Your task to perform on an android device: Search for "bose soundlink mini" on target, select the first entry, add it to the cart, then select checkout. Image 0: 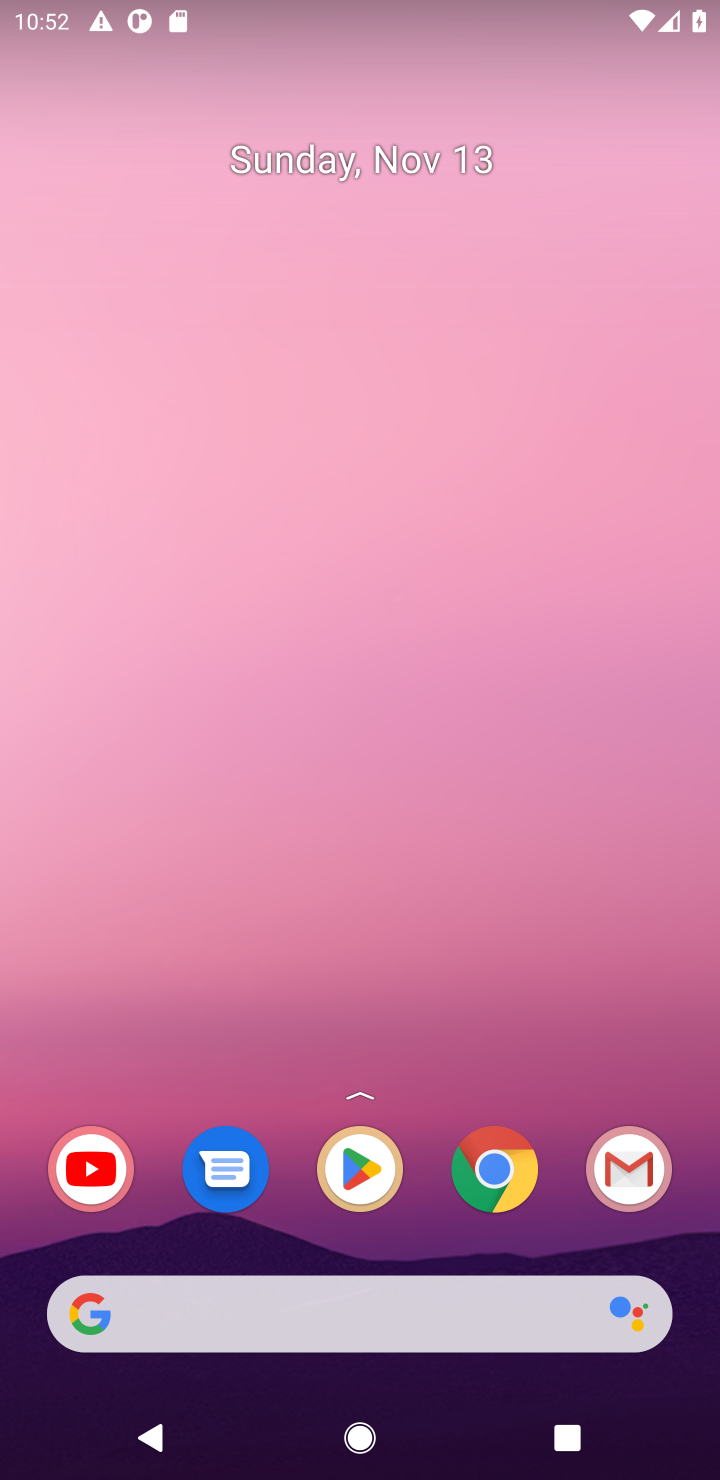
Step 0: drag from (432, 1240) to (277, 225)
Your task to perform on an android device: Search for "bose soundlink mini" on target, select the first entry, add it to the cart, then select checkout. Image 1: 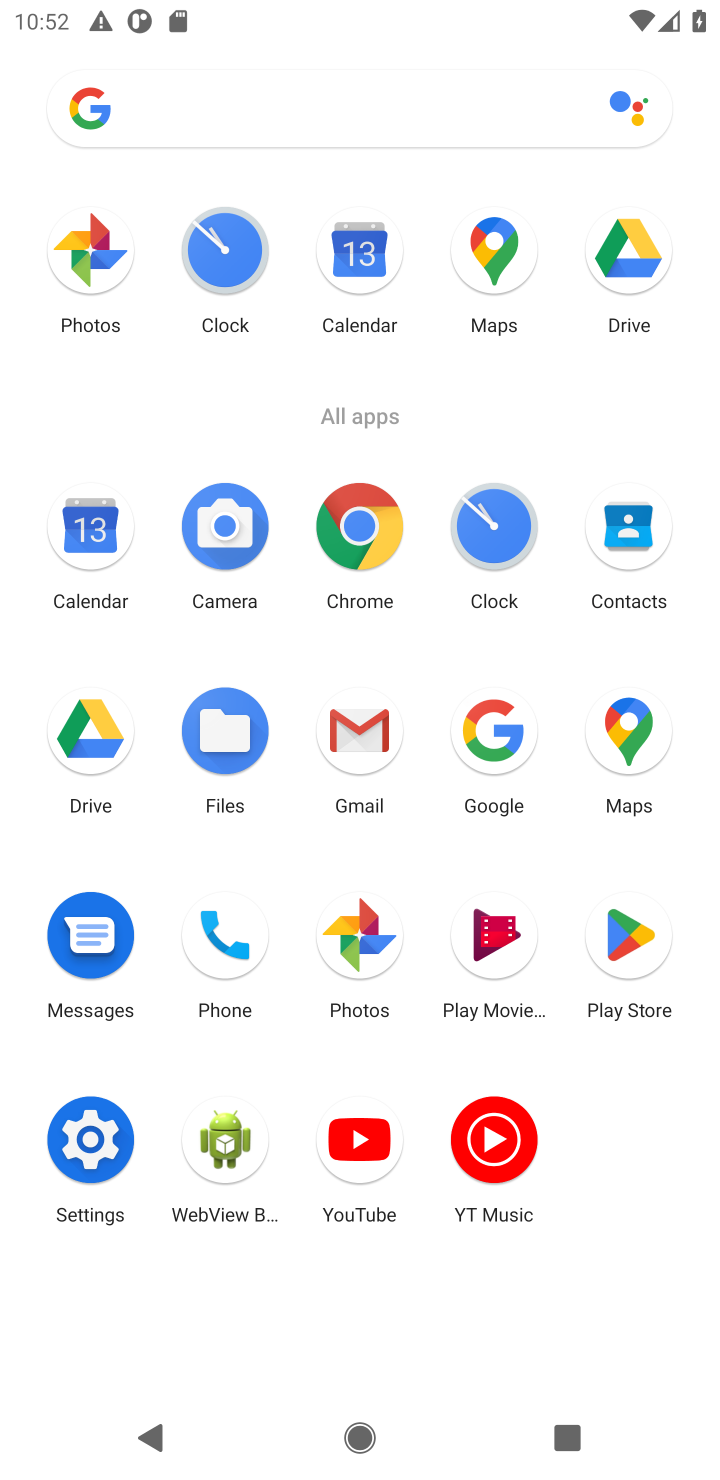
Step 1: click (358, 528)
Your task to perform on an android device: Search for "bose soundlink mini" on target, select the first entry, add it to the cart, then select checkout. Image 2: 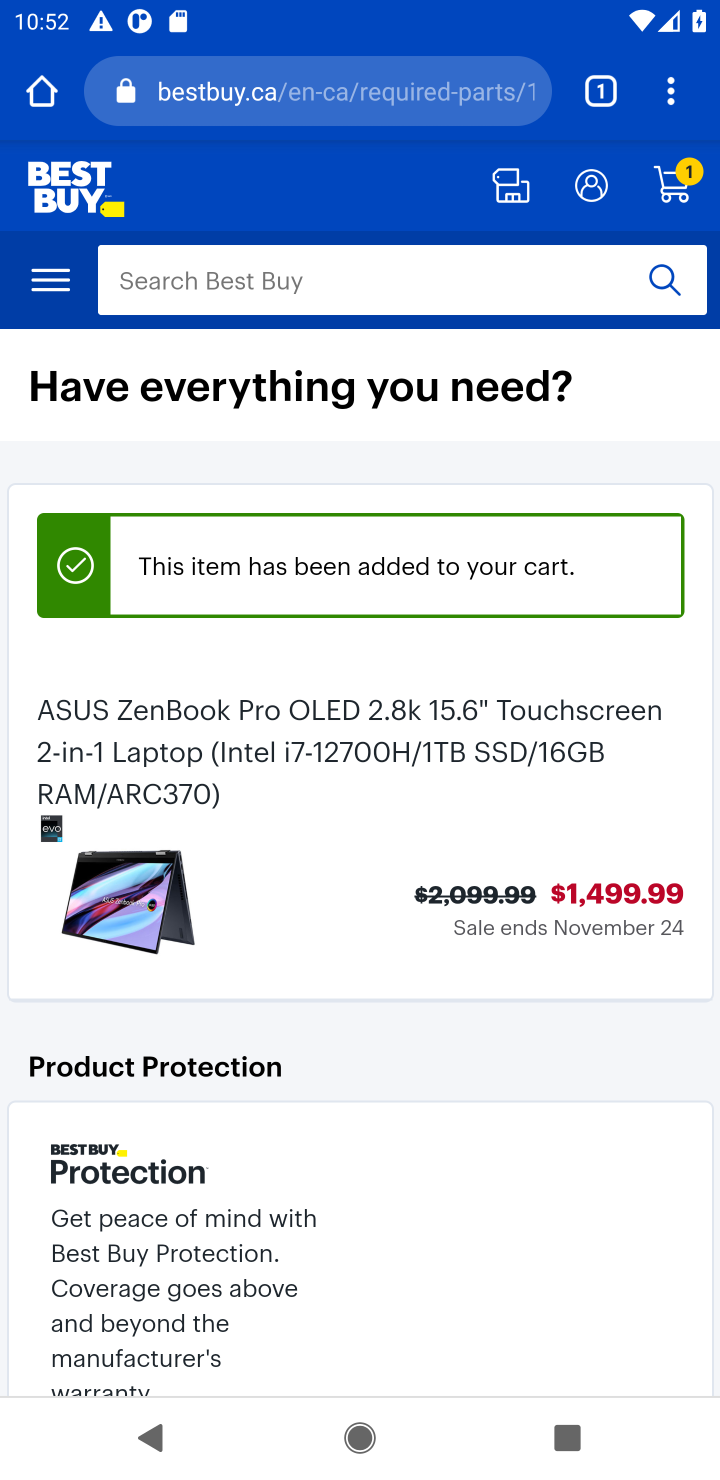
Step 2: click (370, 80)
Your task to perform on an android device: Search for "bose soundlink mini" on target, select the first entry, add it to the cart, then select checkout. Image 3: 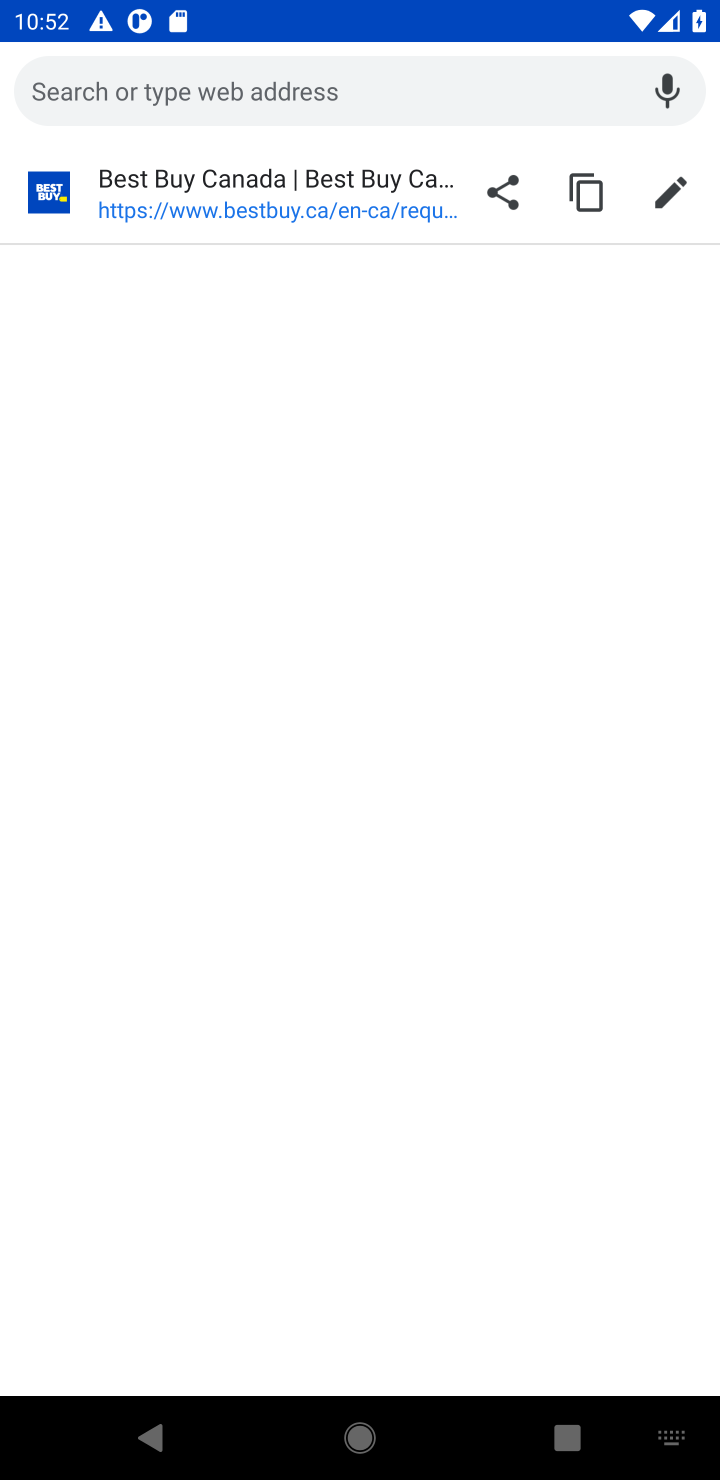
Step 3: type "target.com"
Your task to perform on an android device: Search for "bose soundlink mini" on target, select the first entry, add it to the cart, then select checkout. Image 4: 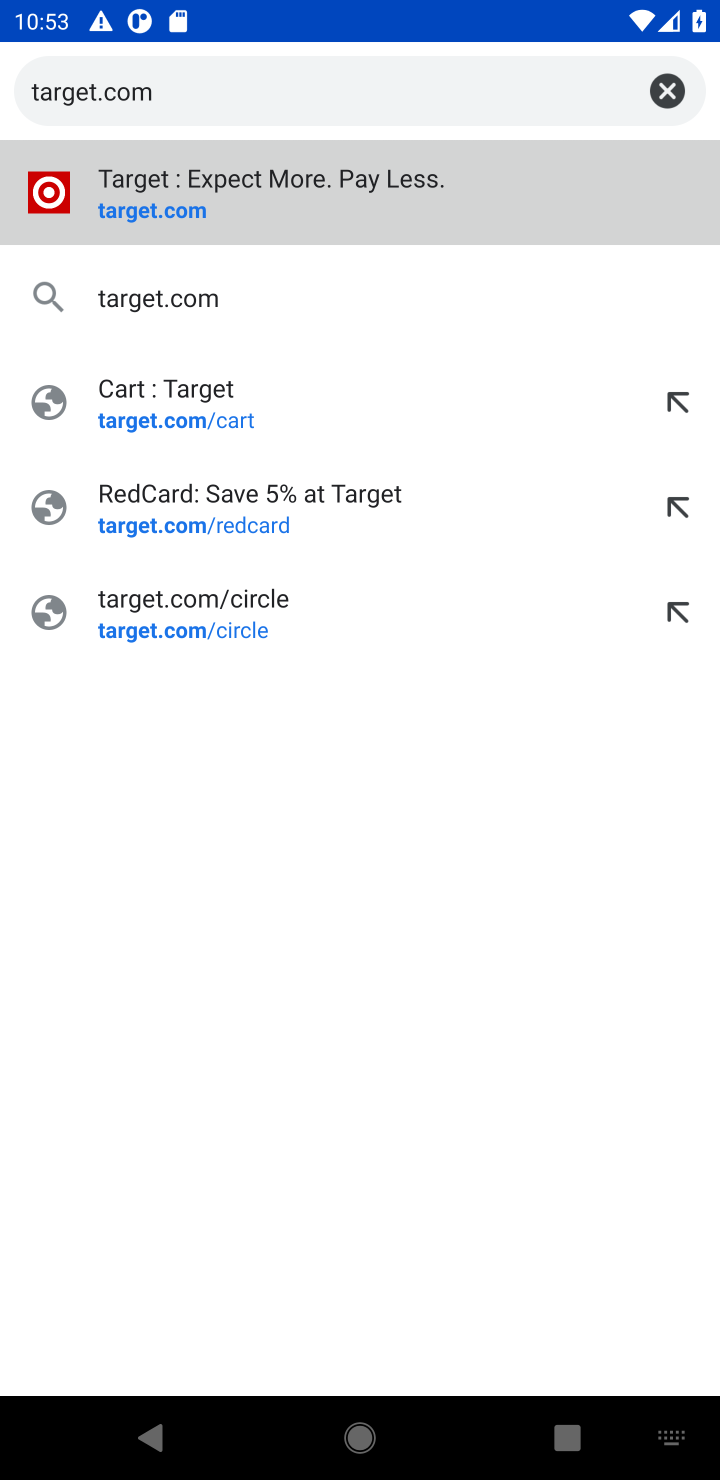
Step 4: press enter
Your task to perform on an android device: Search for "bose soundlink mini" on target, select the first entry, add it to the cart, then select checkout. Image 5: 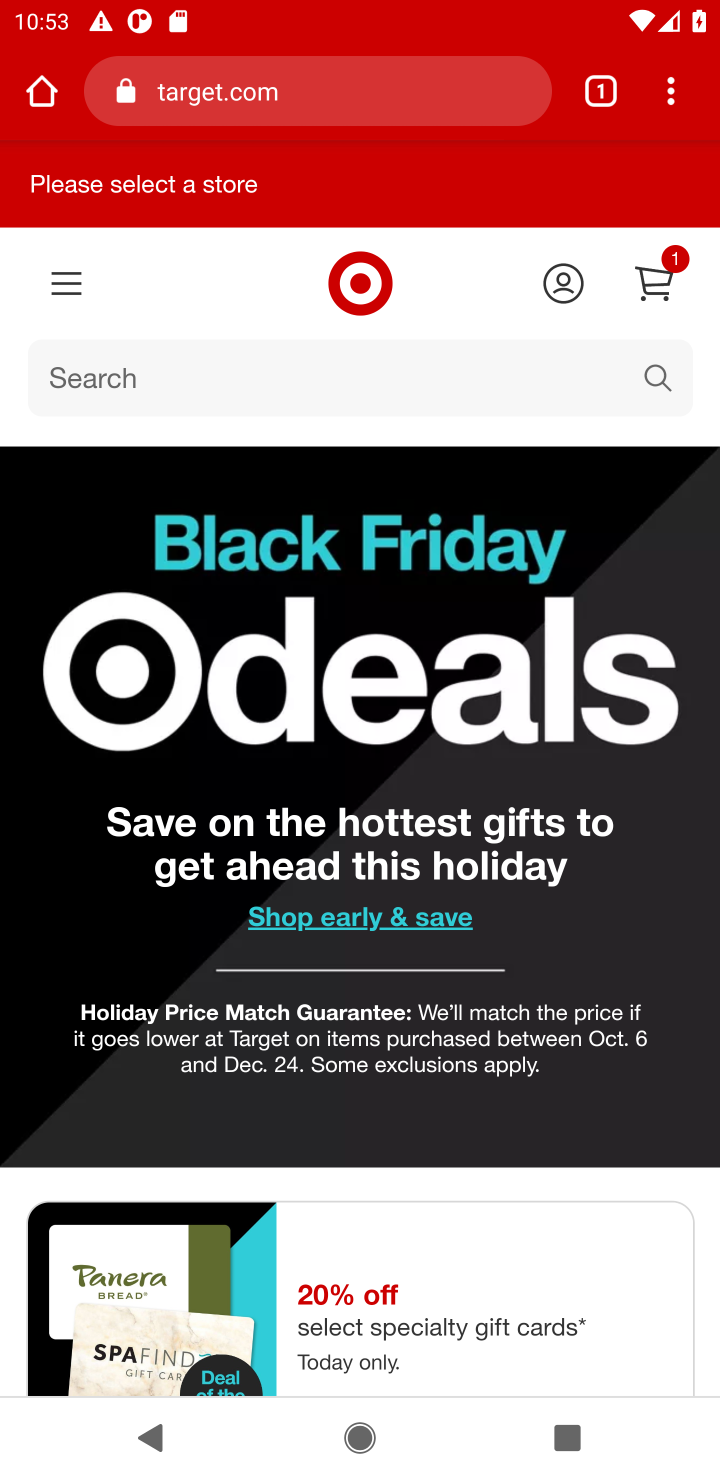
Step 5: click (384, 377)
Your task to perform on an android device: Search for "bose soundlink mini" on target, select the first entry, add it to the cart, then select checkout. Image 6: 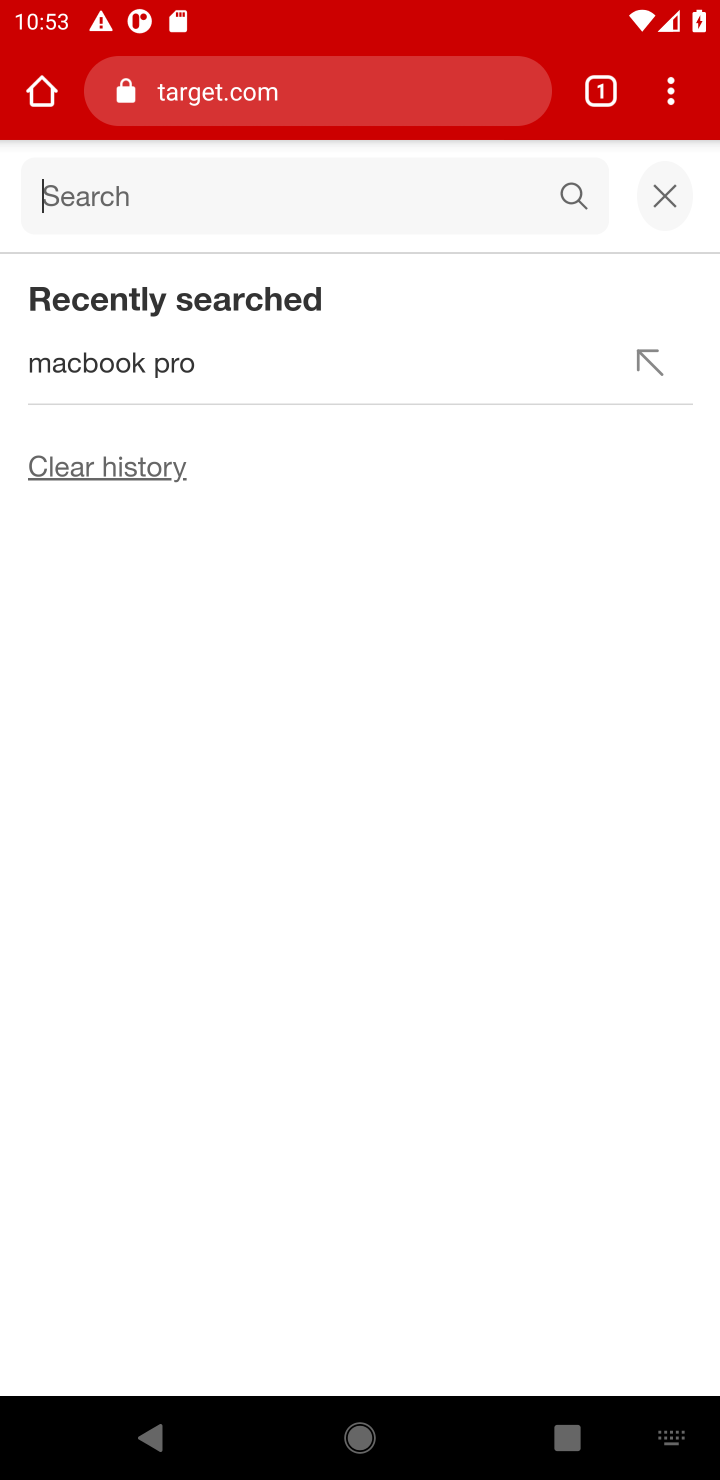
Step 6: type "bose soundlink mini\"
Your task to perform on an android device: Search for "bose soundlink mini" on target, select the first entry, add it to the cart, then select checkout. Image 7: 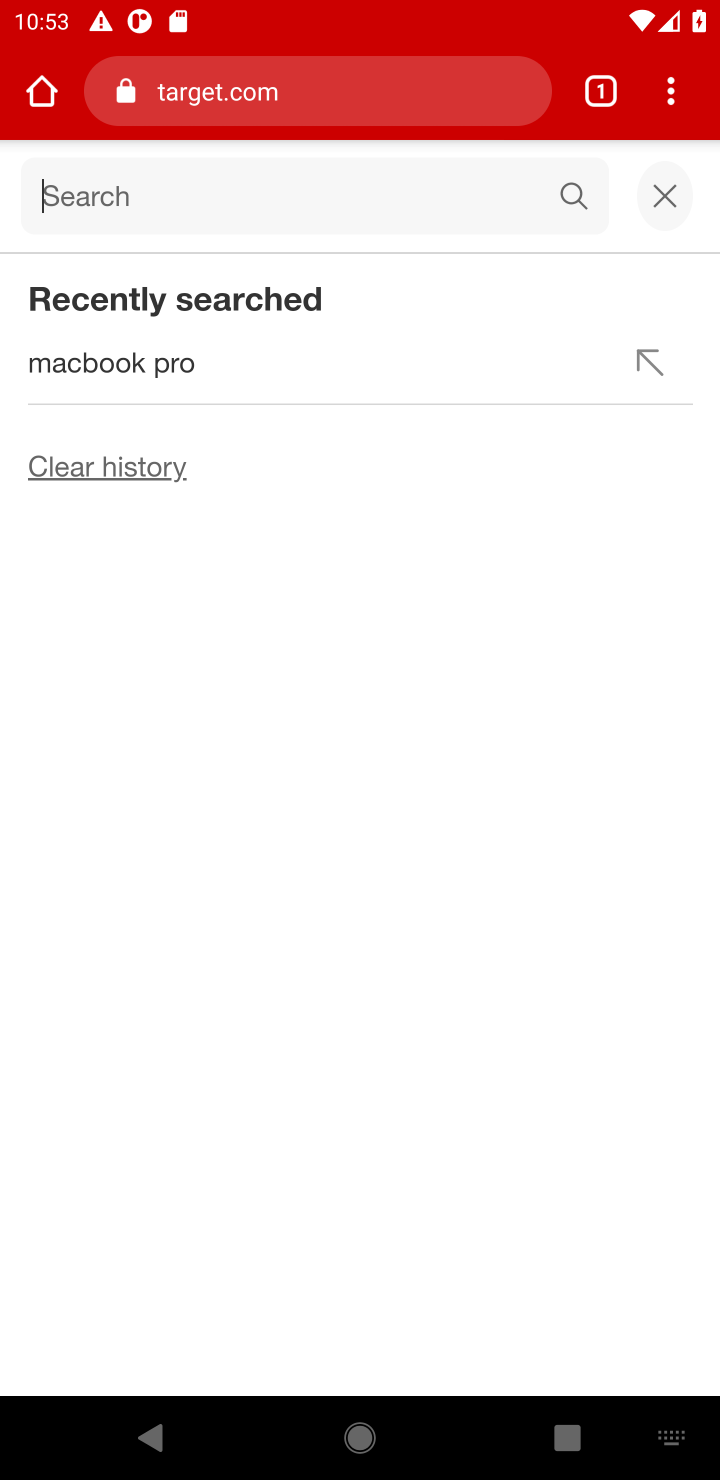
Step 7: press enter
Your task to perform on an android device: Search for "bose soundlink mini" on target, select the first entry, add it to the cart, then select checkout. Image 8: 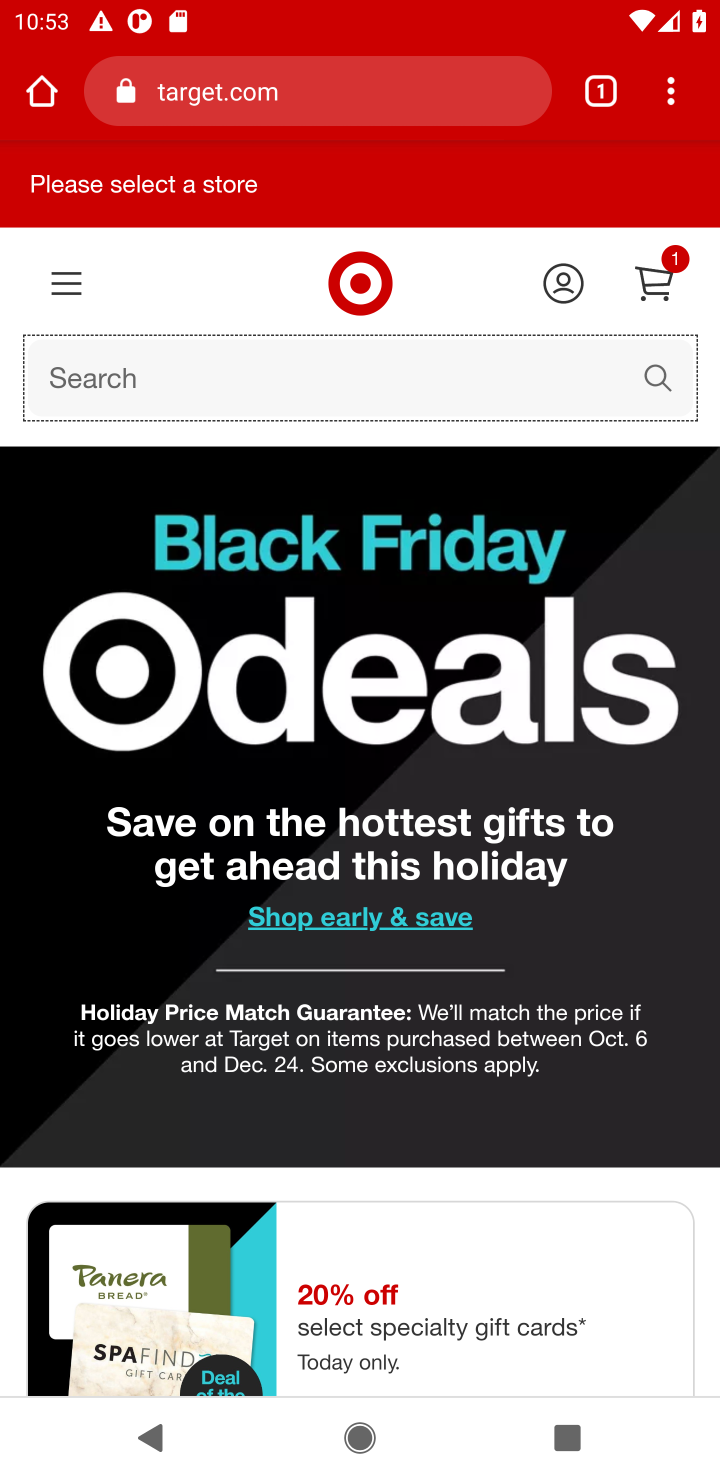
Step 8: drag from (340, 1102) to (388, 434)
Your task to perform on an android device: Search for "bose soundlink mini" on target, select the first entry, add it to the cart, then select checkout. Image 9: 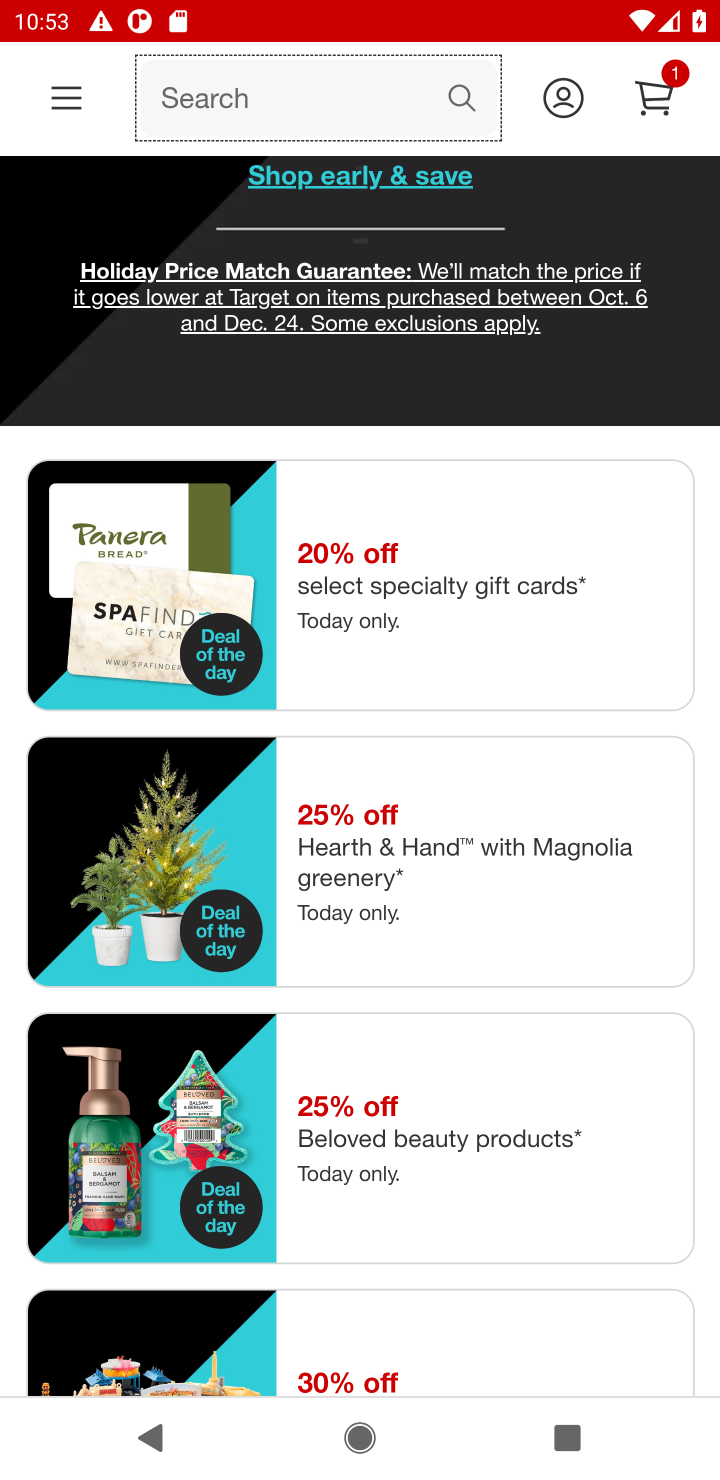
Step 9: drag from (329, 1060) to (469, 256)
Your task to perform on an android device: Search for "bose soundlink mini" on target, select the first entry, add it to the cart, then select checkout. Image 10: 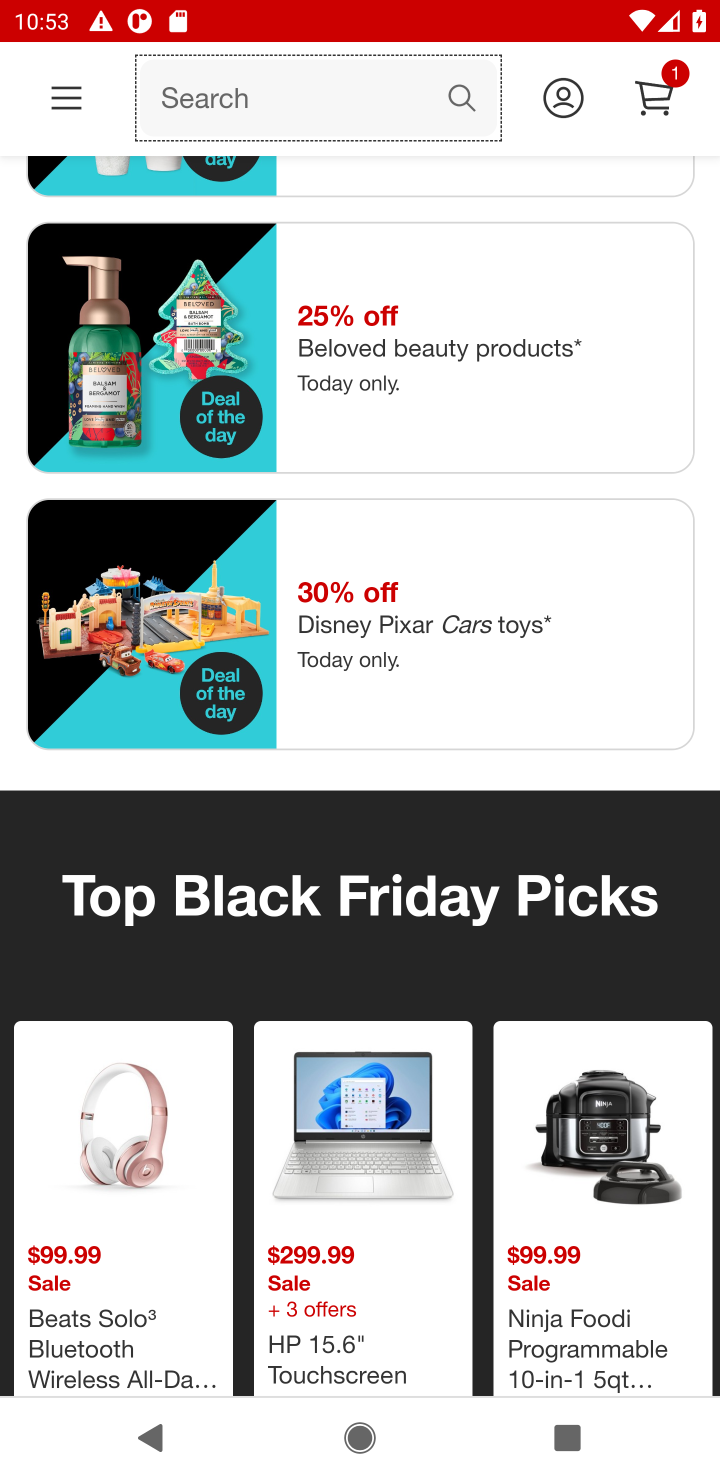
Step 10: drag from (469, 256) to (335, 885)
Your task to perform on an android device: Search for "bose soundlink mini" on target, select the first entry, add it to the cart, then select checkout. Image 11: 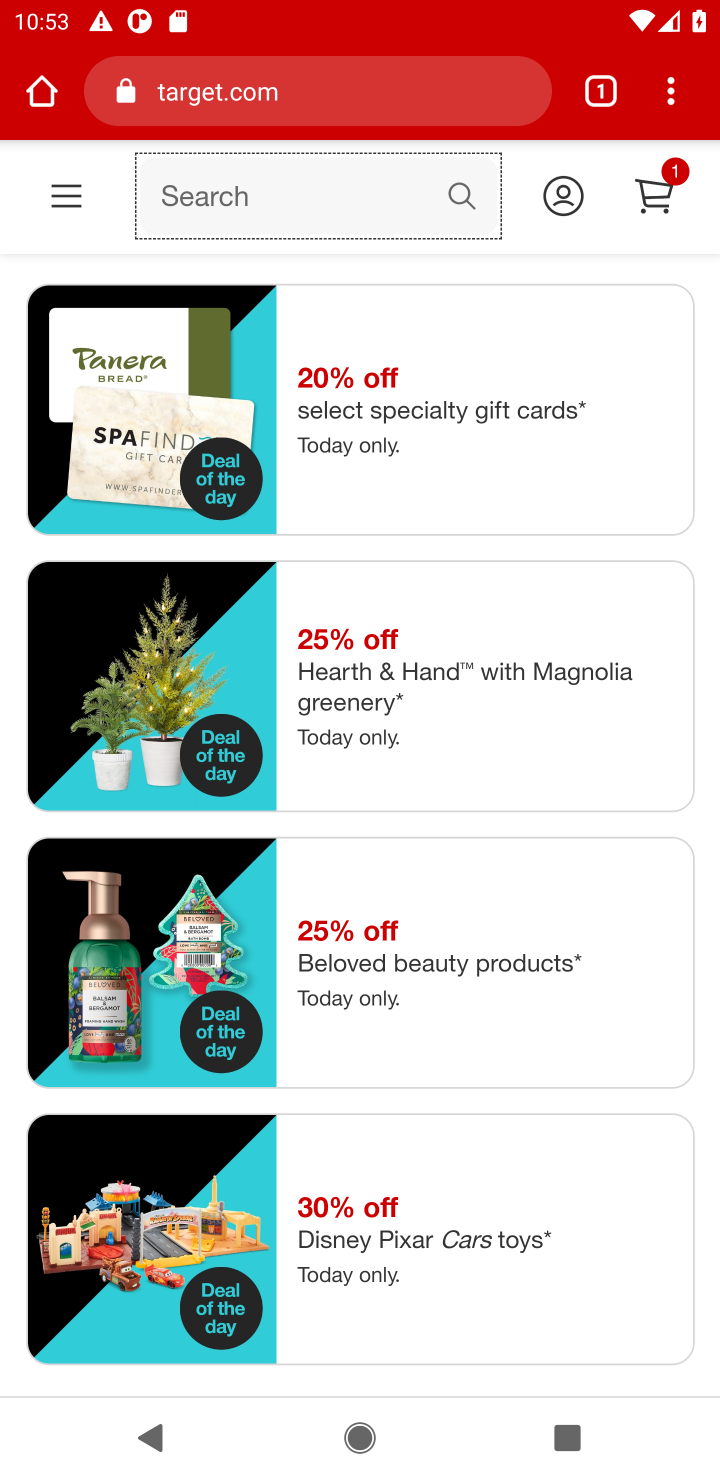
Step 11: click (345, 207)
Your task to perform on an android device: Search for "bose soundlink mini" on target, select the first entry, add it to the cart, then select checkout. Image 12: 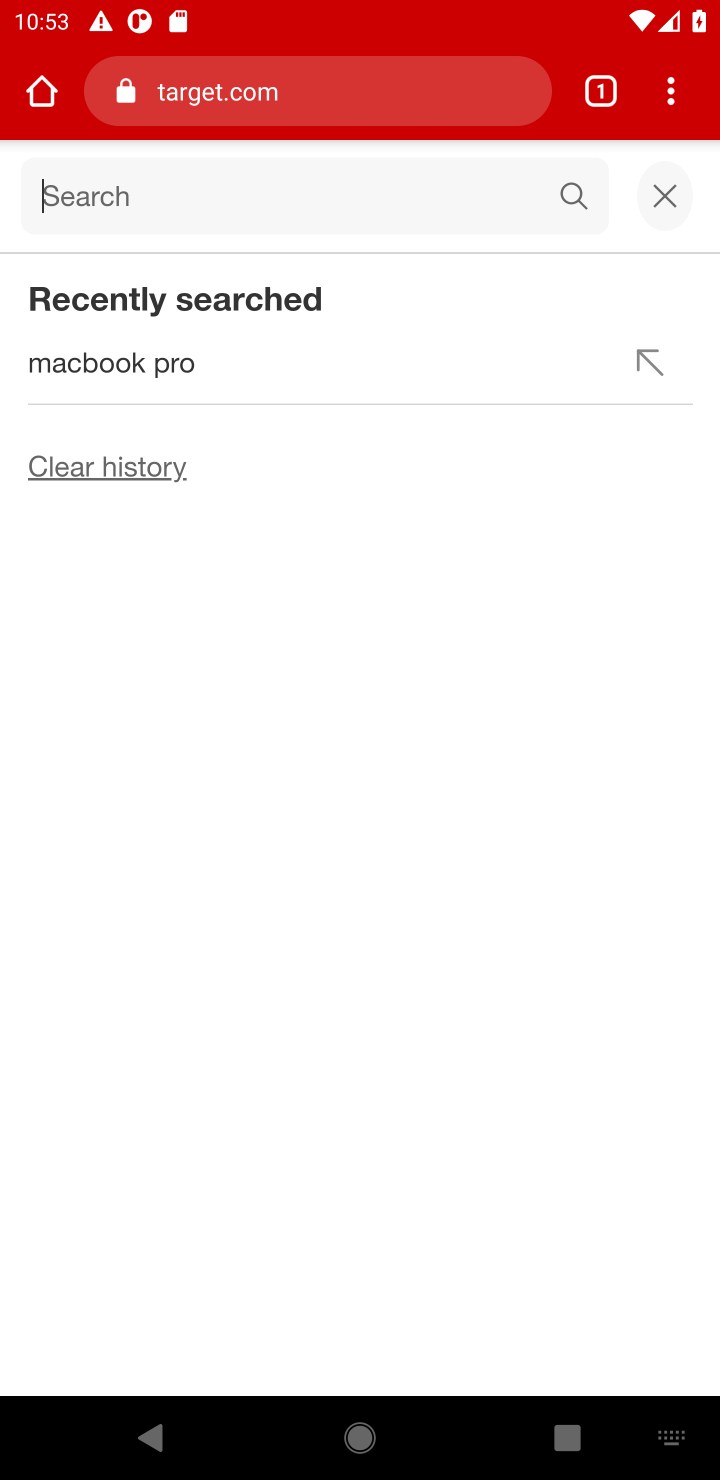
Step 12: type "bose soundlink mini"
Your task to perform on an android device: Search for "bose soundlink mini" on target, select the first entry, add it to the cart, then select checkout. Image 13: 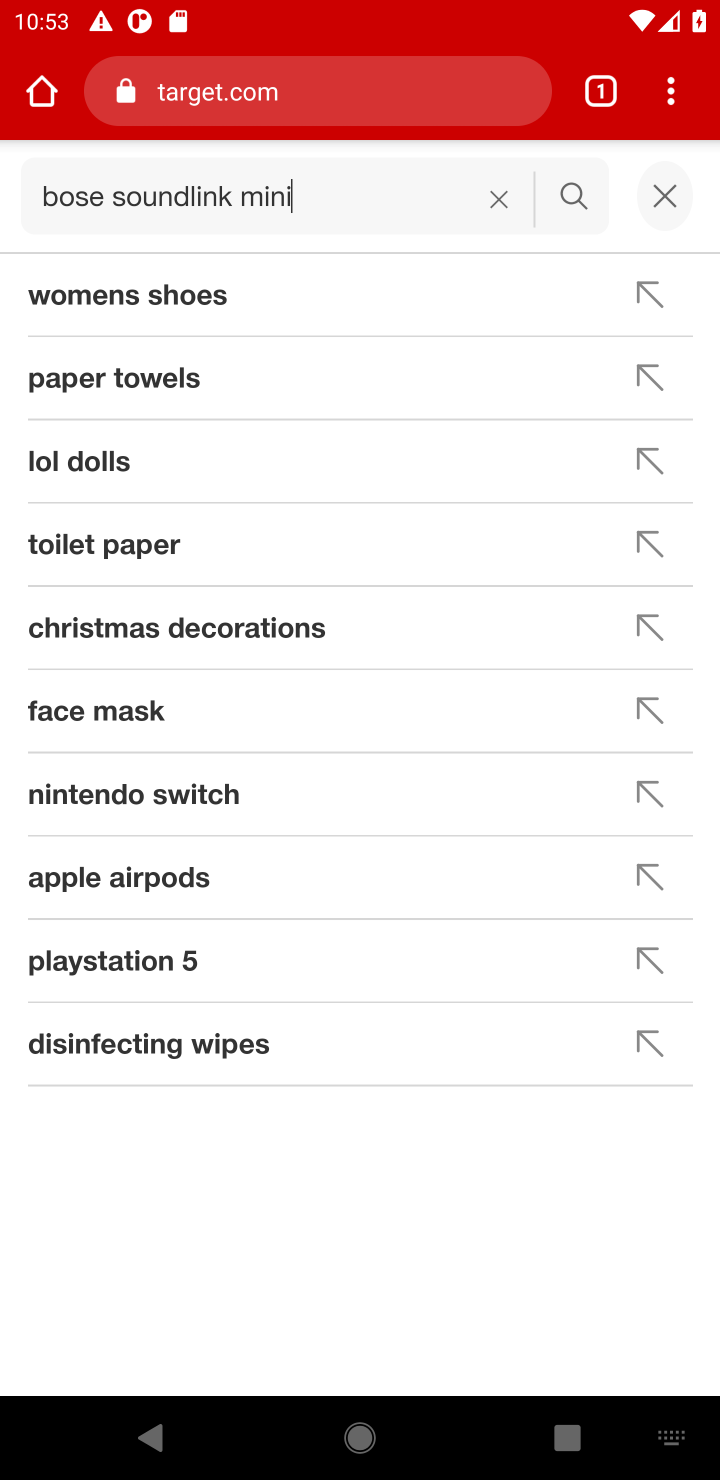
Step 13: press enter
Your task to perform on an android device: Search for "bose soundlink mini" on target, select the first entry, add it to the cart, then select checkout. Image 14: 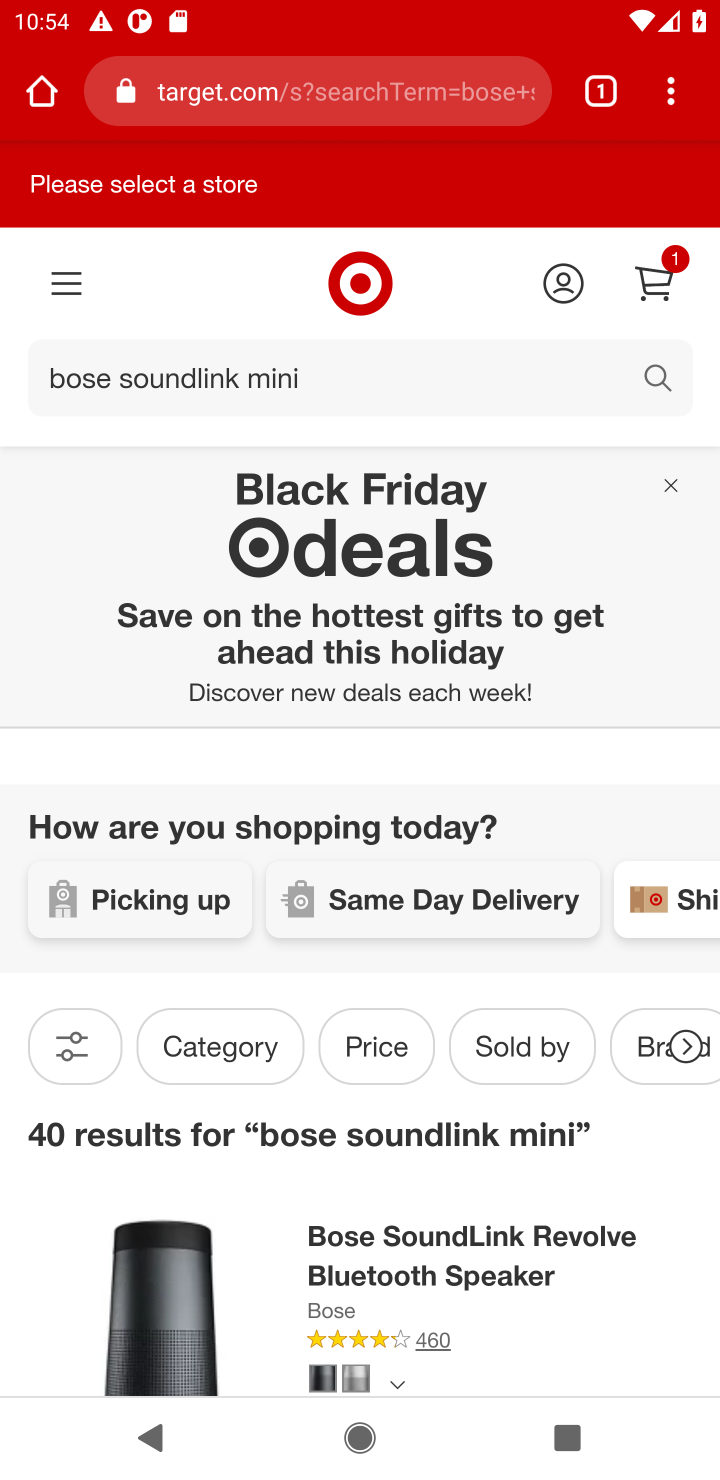
Step 14: press enter
Your task to perform on an android device: Search for "bose soundlink mini" on target, select the first entry, add it to the cart, then select checkout. Image 15: 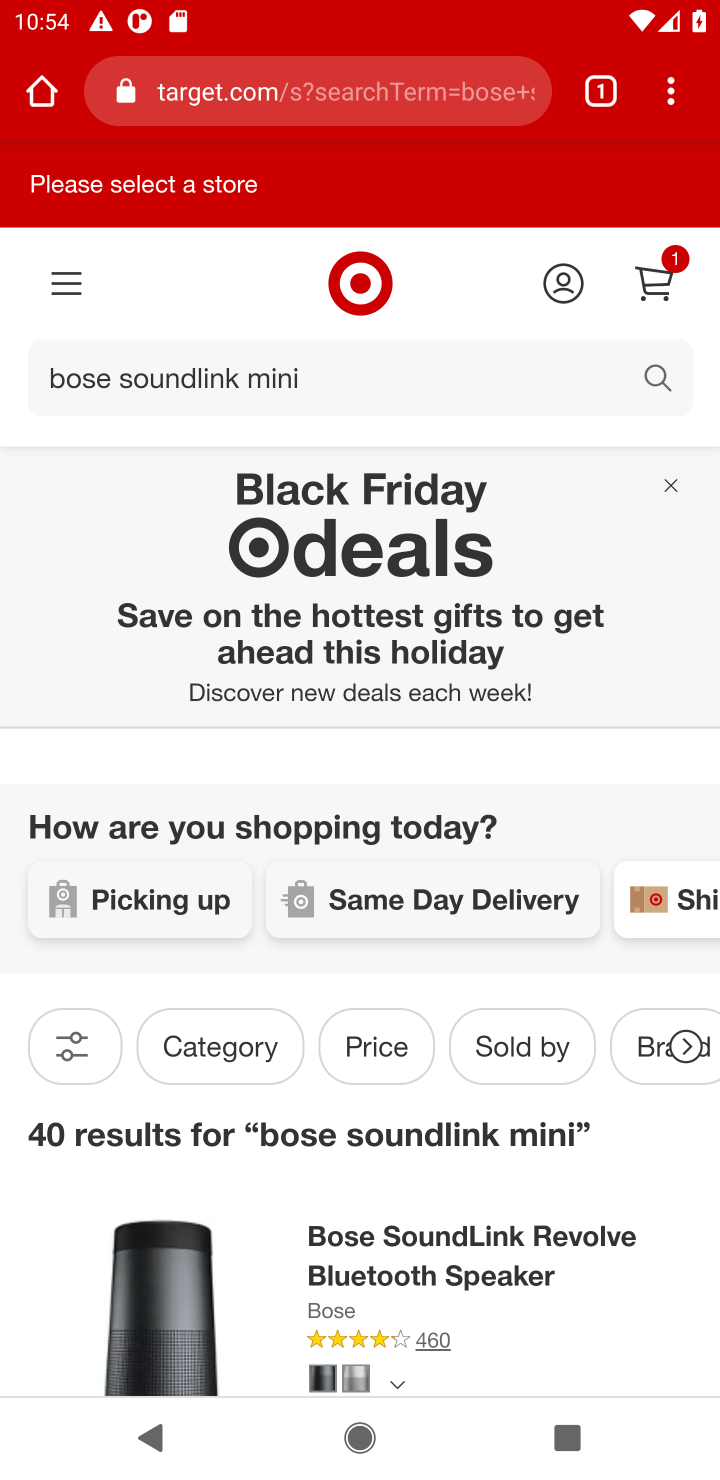
Step 15: task complete